Your task to perform on an android device: change alarm snooze length Image 0: 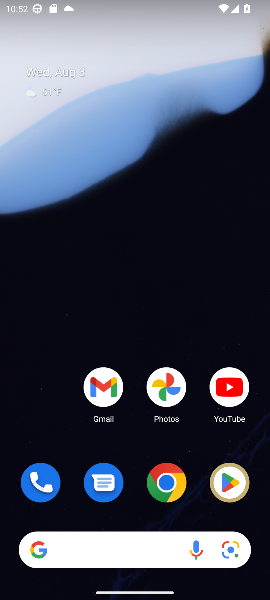
Step 0: drag from (129, 524) to (121, 27)
Your task to perform on an android device: change alarm snooze length Image 1: 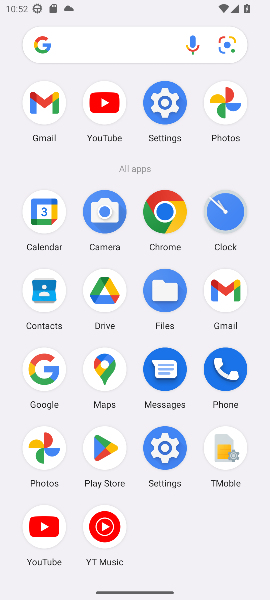
Step 1: click (230, 196)
Your task to perform on an android device: change alarm snooze length Image 2: 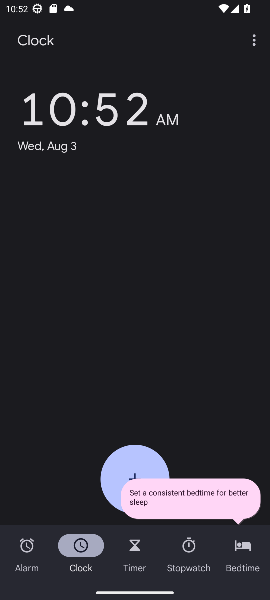
Step 2: task complete